Your task to perform on an android device: empty trash in the gmail app Image 0: 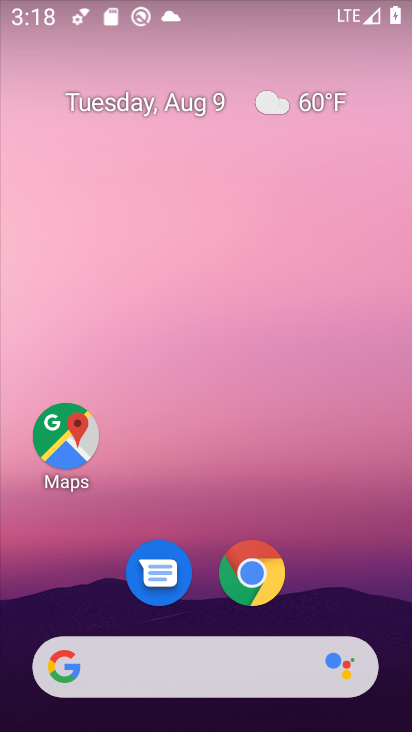
Step 0: drag from (324, 539) to (32, 119)
Your task to perform on an android device: empty trash in the gmail app Image 1: 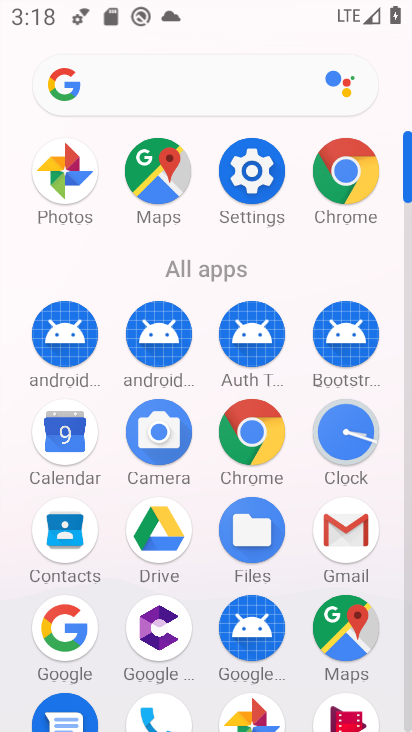
Step 1: click (356, 520)
Your task to perform on an android device: empty trash in the gmail app Image 2: 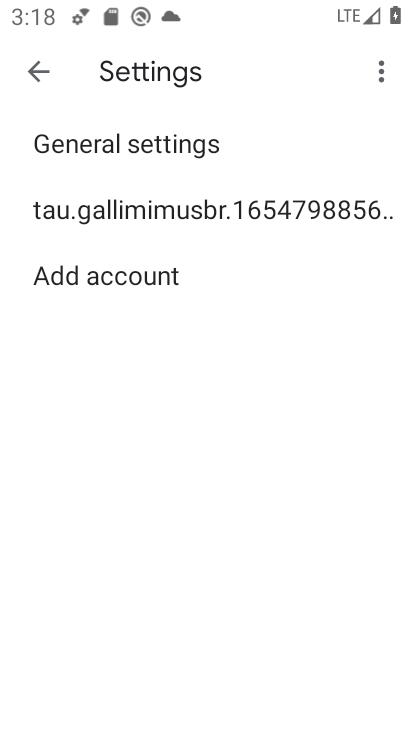
Step 2: click (45, 74)
Your task to perform on an android device: empty trash in the gmail app Image 3: 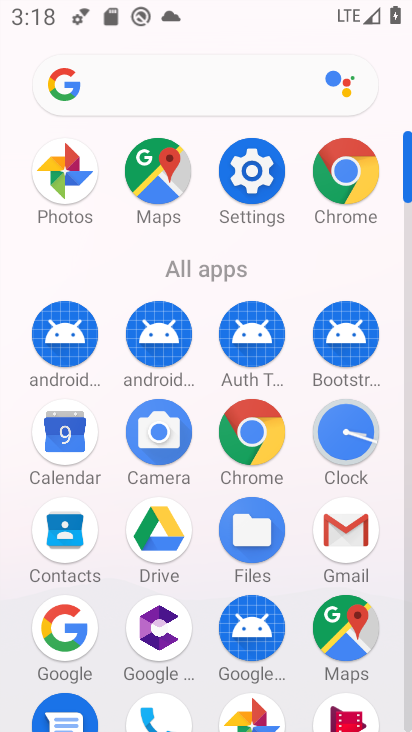
Step 3: click (336, 529)
Your task to perform on an android device: empty trash in the gmail app Image 4: 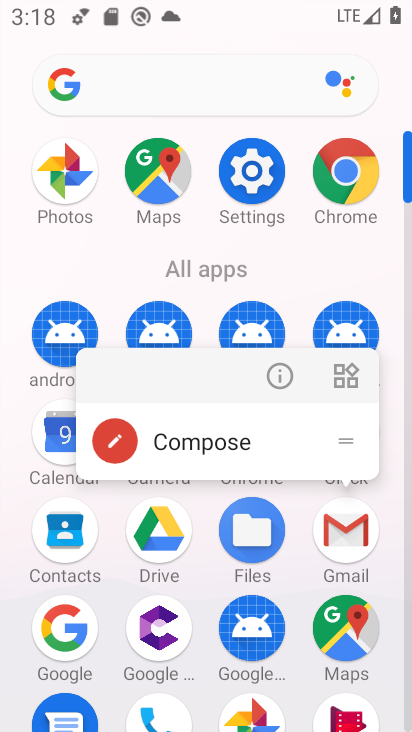
Step 4: click (338, 530)
Your task to perform on an android device: empty trash in the gmail app Image 5: 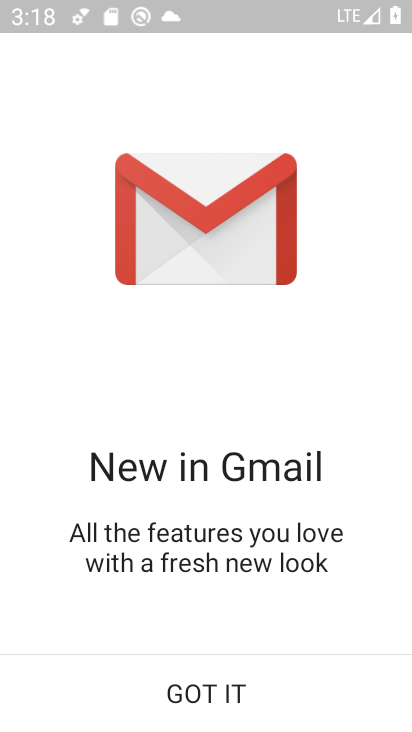
Step 5: click (293, 704)
Your task to perform on an android device: empty trash in the gmail app Image 6: 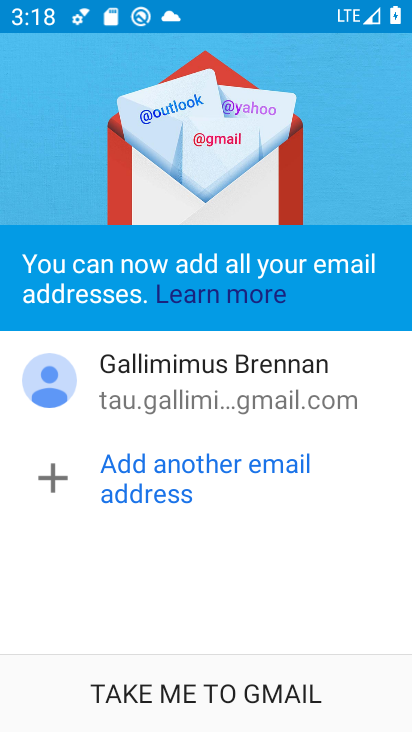
Step 6: click (298, 688)
Your task to perform on an android device: empty trash in the gmail app Image 7: 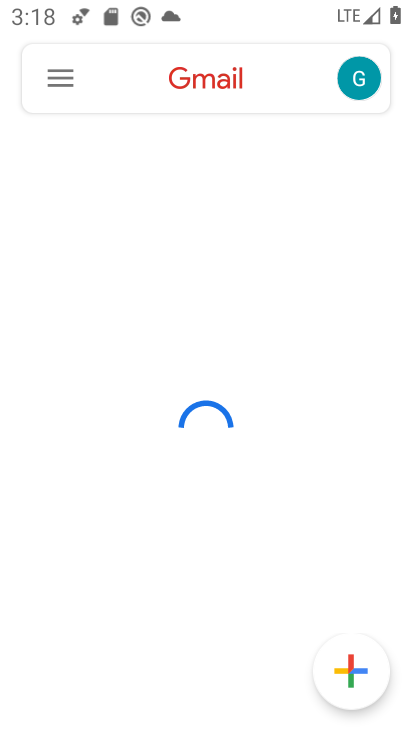
Step 7: click (53, 82)
Your task to perform on an android device: empty trash in the gmail app Image 8: 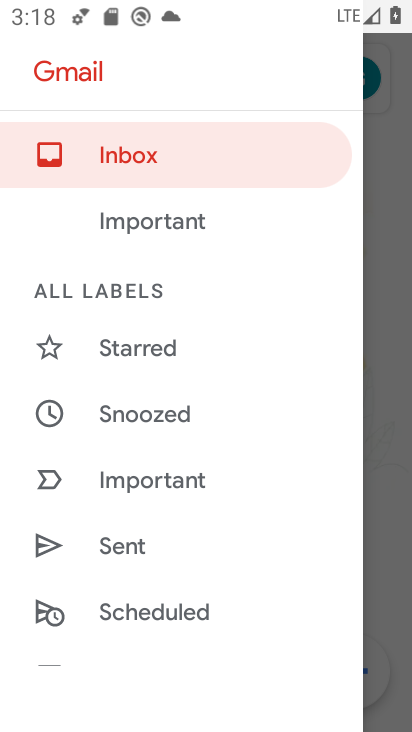
Step 8: drag from (256, 568) to (169, 226)
Your task to perform on an android device: empty trash in the gmail app Image 9: 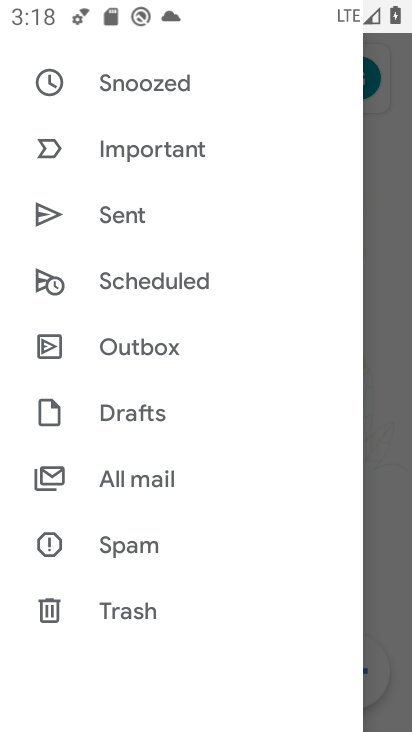
Step 9: click (133, 612)
Your task to perform on an android device: empty trash in the gmail app Image 10: 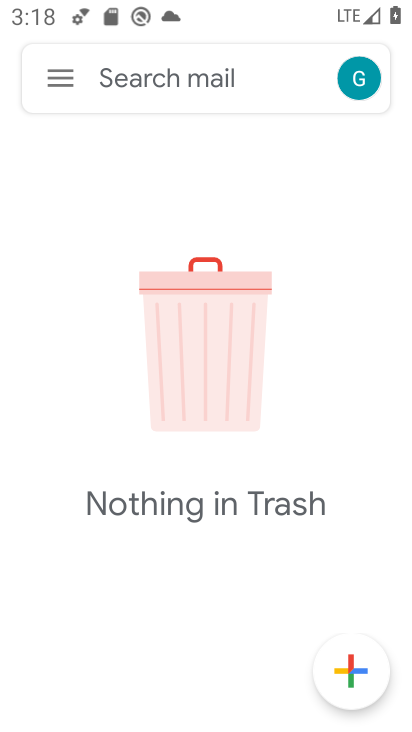
Step 10: task complete